Your task to perform on an android device: Go to notification settings Image 0: 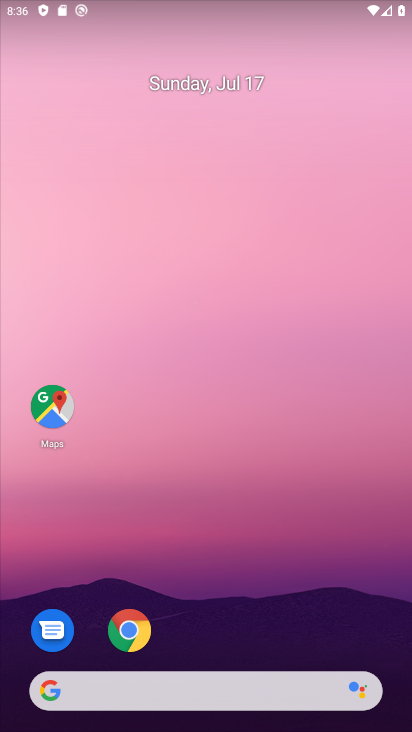
Step 0: drag from (258, 630) to (273, 231)
Your task to perform on an android device: Go to notification settings Image 1: 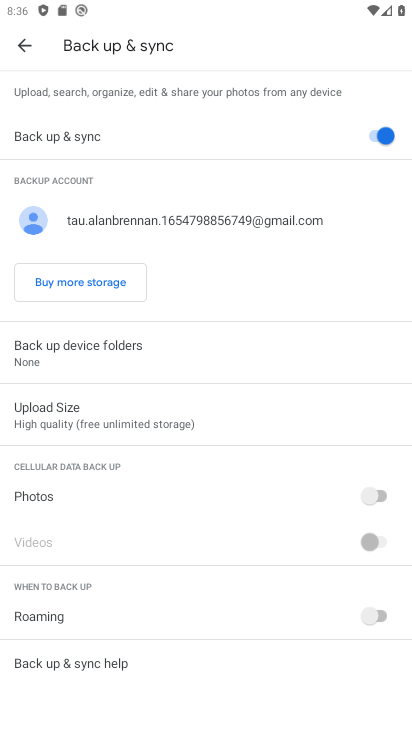
Step 1: press home button
Your task to perform on an android device: Go to notification settings Image 2: 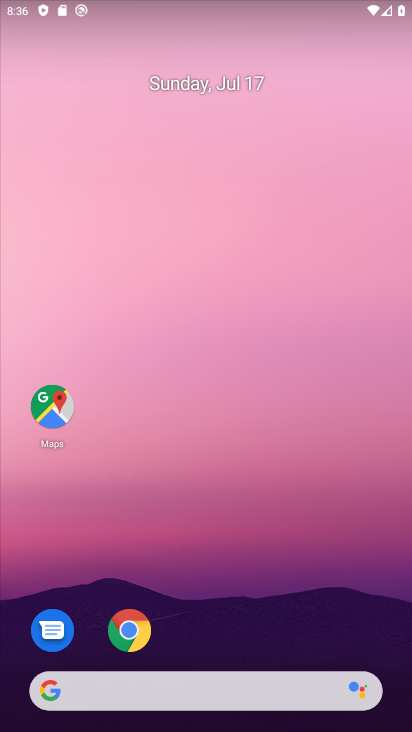
Step 2: drag from (247, 645) to (222, 240)
Your task to perform on an android device: Go to notification settings Image 3: 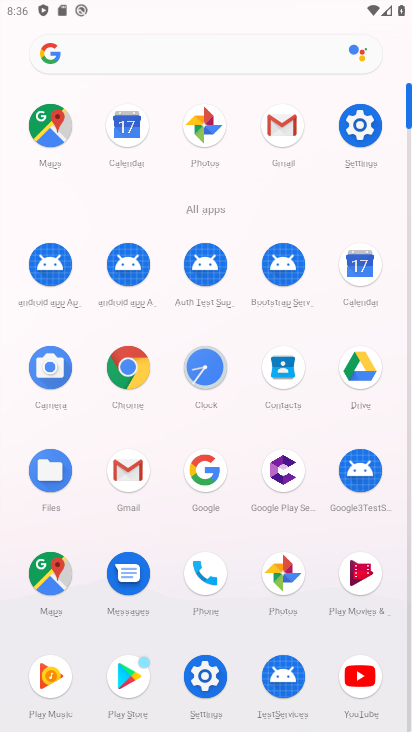
Step 3: click (193, 661)
Your task to perform on an android device: Go to notification settings Image 4: 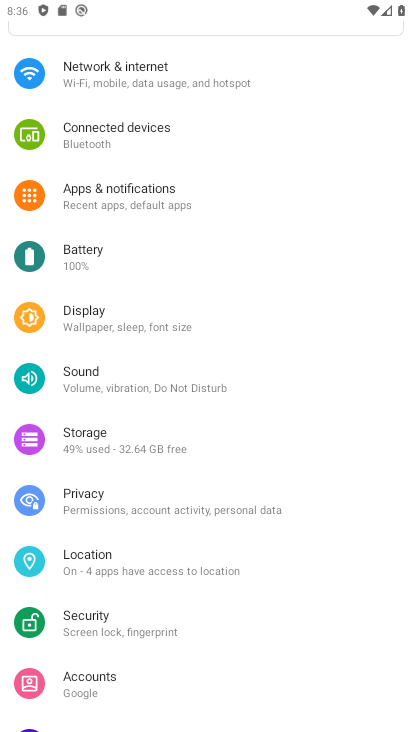
Step 4: click (171, 209)
Your task to perform on an android device: Go to notification settings Image 5: 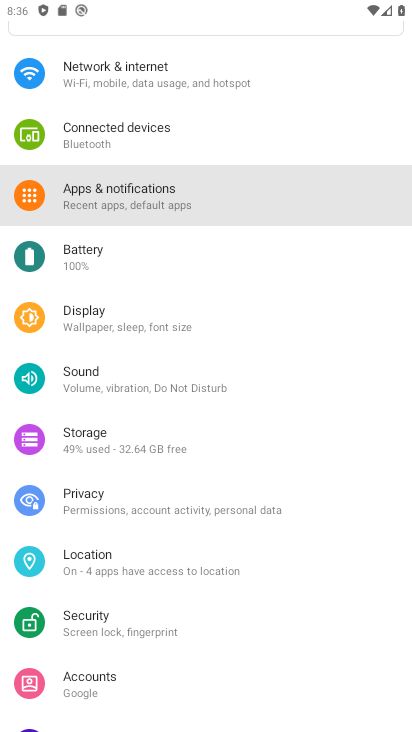
Step 5: task complete